Your task to perform on an android device: Go to Wikipedia Image 0: 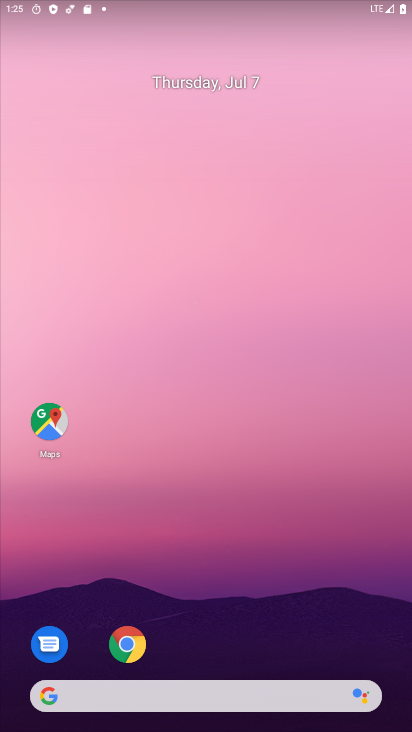
Step 0: click (130, 640)
Your task to perform on an android device: Go to Wikipedia Image 1: 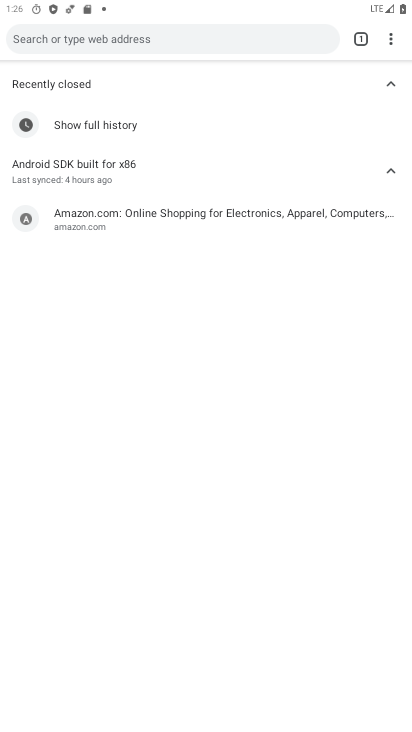
Step 1: click (393, 41)
Your task to perform on an android device: Go to Wikipedia Image 2: 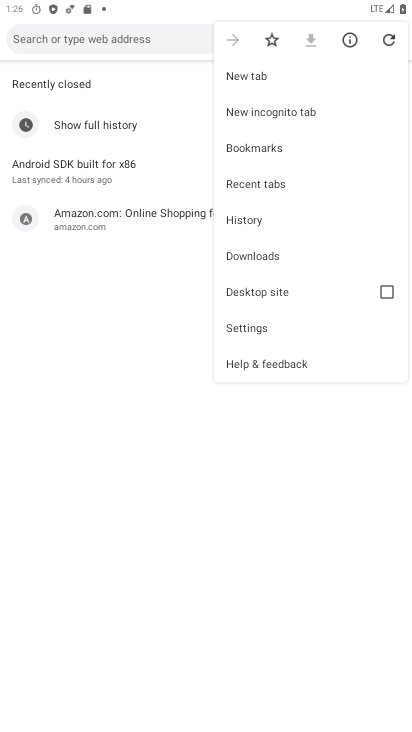
Step 2: click (243, 80)
Your task to perform on an android device: Go to Wikipedia Image 3: 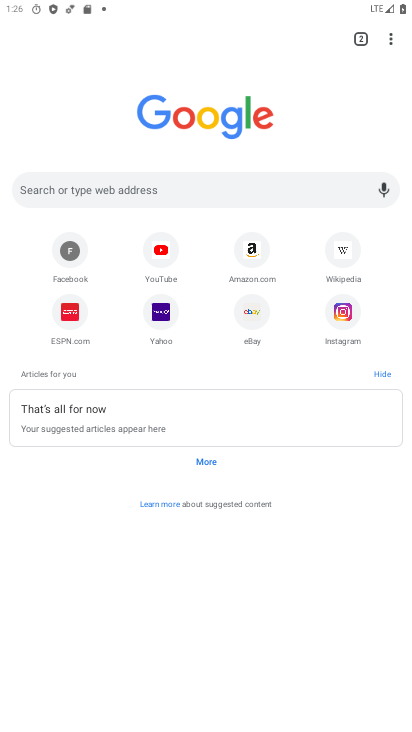
Step 3: click (341, 250)
Your task to perform on an android device: Go to Wikipedia Image 4: 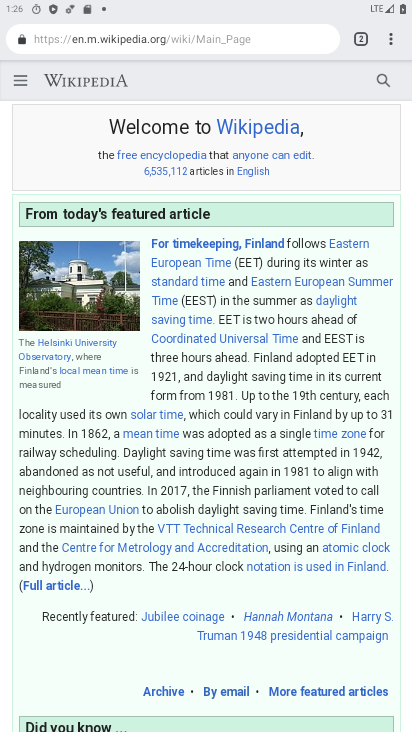
Step 4: task complete